Your task to perform on an android device: manage bookmarks in the chrome app Image 0: 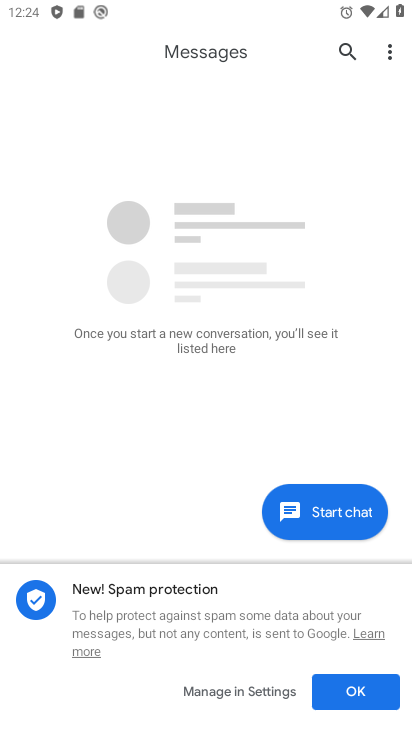
Step 0: press home button
Your task to perform on an android device: manage bookmarks in the chrome app Image 1: 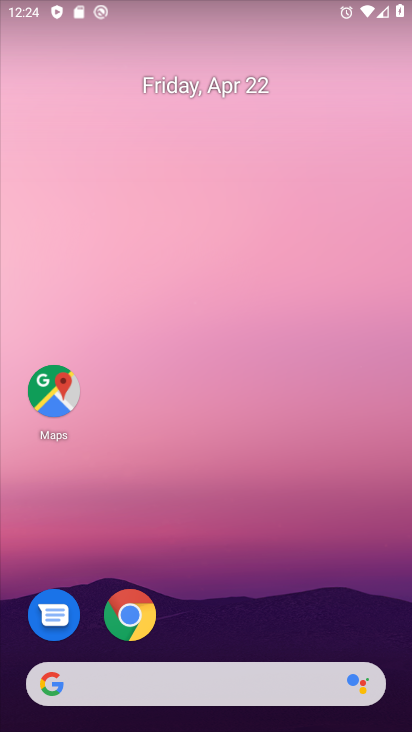
Step 1: click (121, 630)
Your task to perform on an android device: manage bookmarks in the chrome app Image 2: 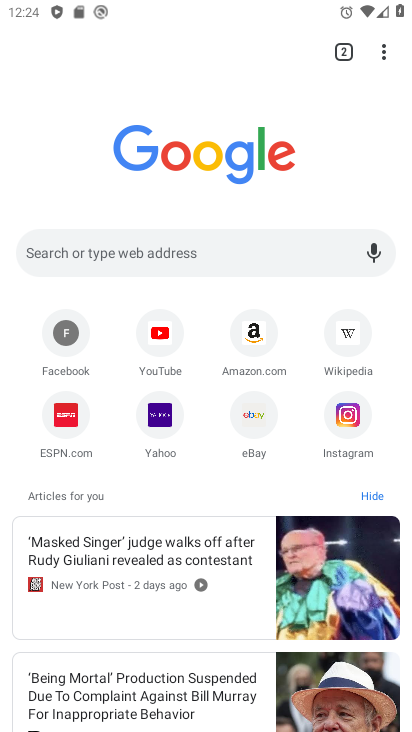
Step 2: click (383, 56)
Your task to perform on an android device: manage bookmarks in the chrome app Image 3: 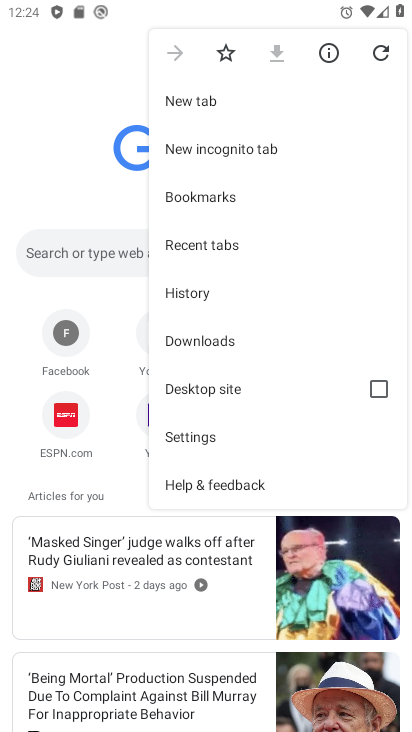
Step 3: click (231, 206)
Your task to perform on an android device: manage bookmarks in the chrome app Image 4: 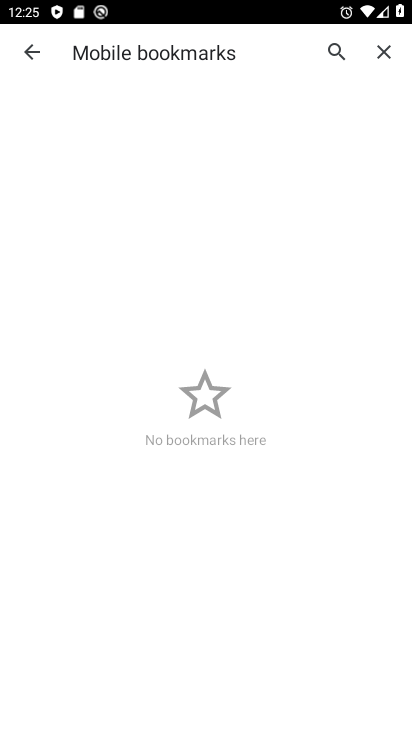
Step 4: task complete